Your task to perform on an android device: clear all cookies in the chrome app Image 0: 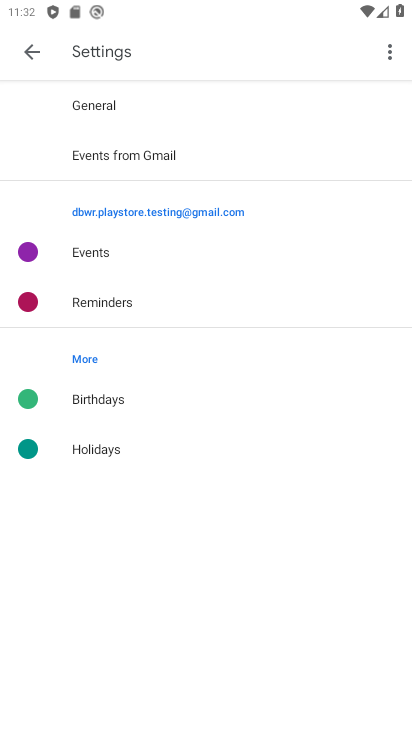
Step 0: press home button
Your task to perform on an android device: clear all cookies in the chrome app Image 1: 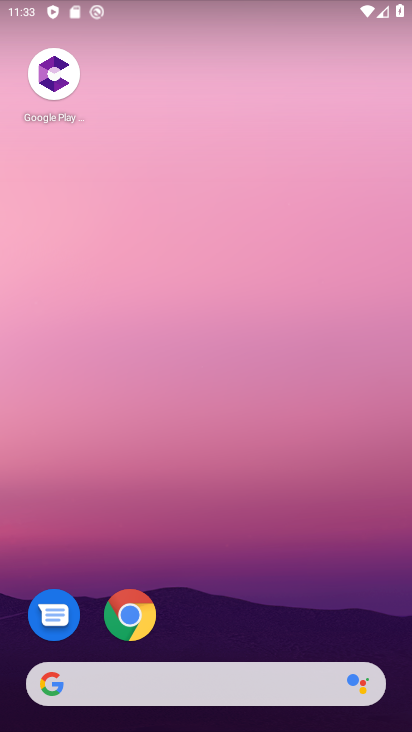
Step 1: drag from (343, 580) to (270, 87)
Your task to perform on an android device: clear all cookies in the chrome app Image 2: 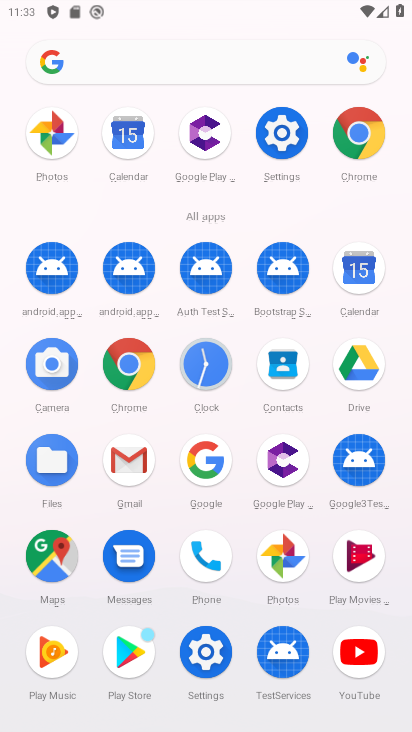
Step 2: click (381, 126)
Your task to perform on an android device: clear all cookies in the chrome app Image 3: 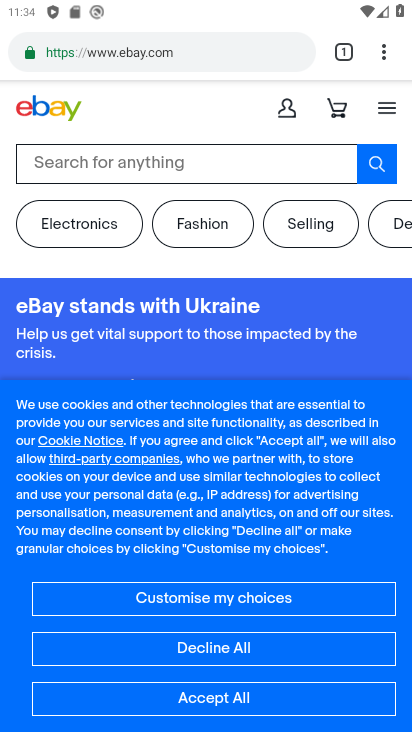
Step 3: drag from (389, 54) to (215, 305)
Your task to perform on an android device: clear all cookies in the chrome app Image 4: 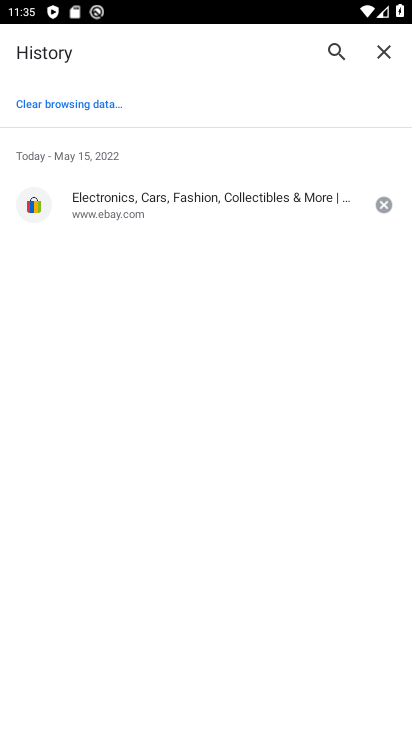
Step 4: click (90, 115)
Your task to perform on an android device: clear all cookies in the chrome app Image 5: 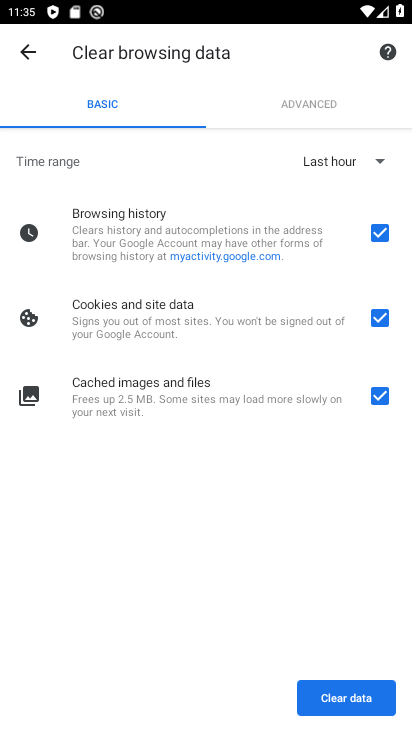
Step 5: click (379, 315)
Your task to perform on an android device: clear all cookies in the chrome app Image 6: 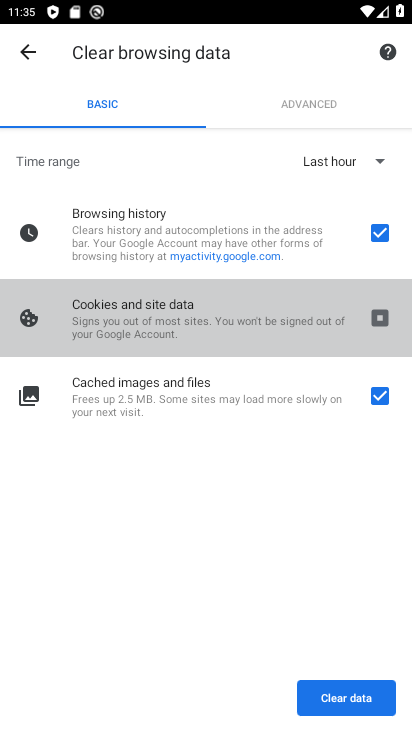
Step 6: click (381, 399)
Your task to perform on an android device: clear all cookies in the chrome app Image 7: 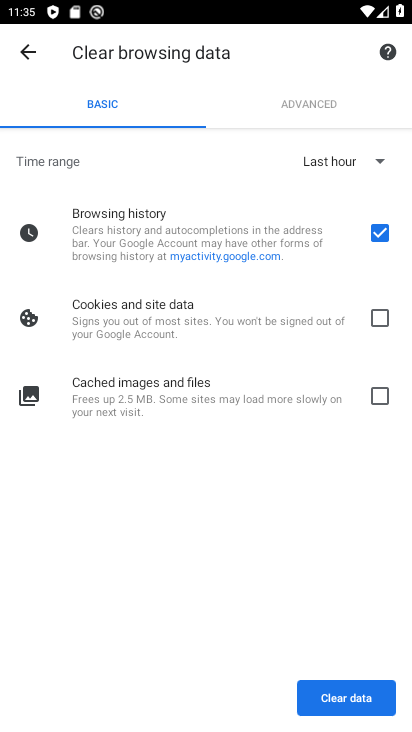
Step 7: click (383, 323)
Your task to perform on an android device: clear all cookies in the chrome app Image 8: 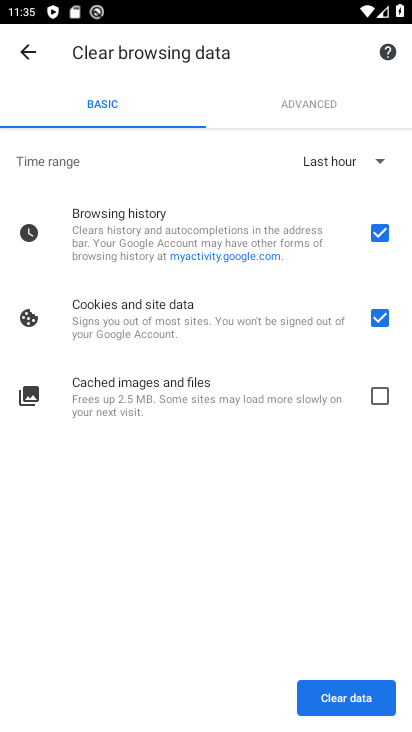
Step 8: click (378, 234)
Your task to perform on an android device: clear all cookies in the chrome app Image 9: 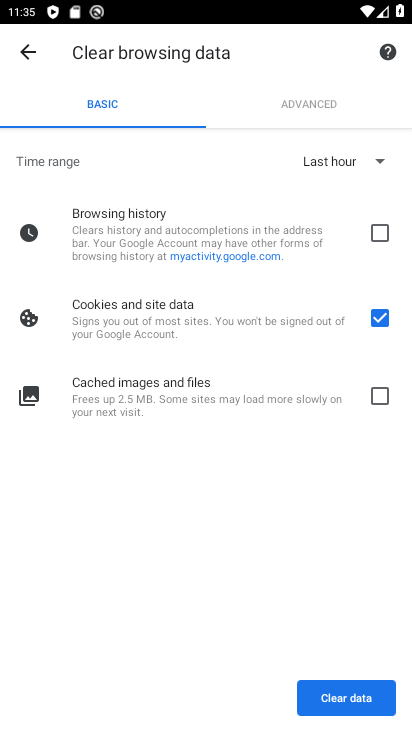
Step 9: click (354, 689)
Your task to perform on an android device: clear all cookies in the chrome app Image 10: 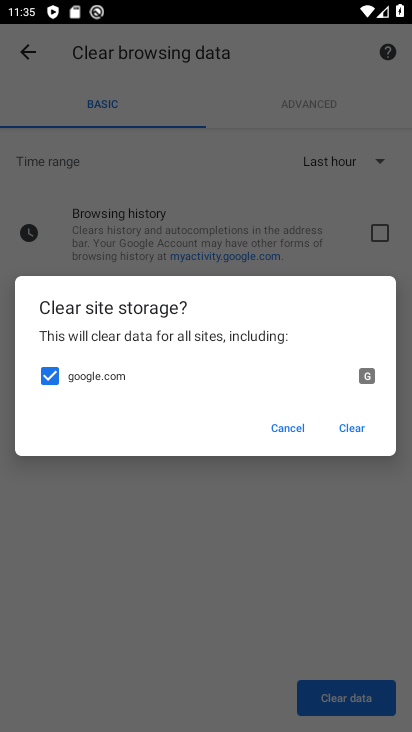
Step 10: click (346, 420)
Your task to perform on an android device: clear all cookies in the chrome app Image 11: 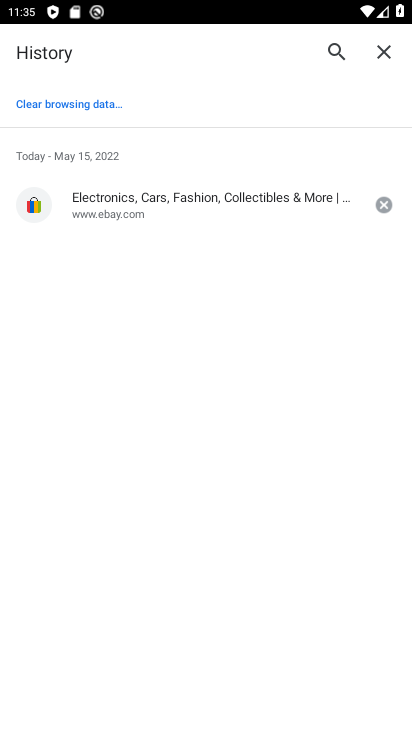
Step 11: task complete